Your task to perform on an android device: Go to network settings Image 0: 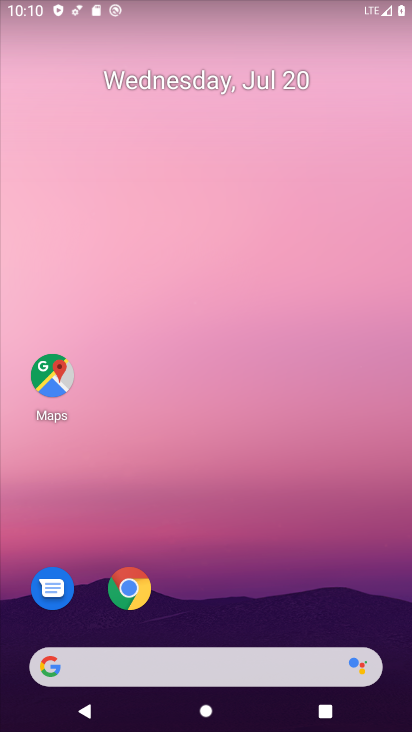
Step 0: drag from (212, 621) to (147, 37)
Your task to perform on an android device: Go to network settings Image 1: 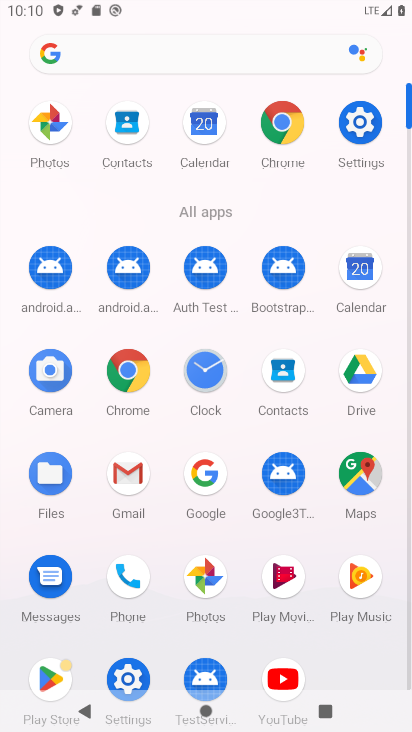
Step 1: click (363, 138)
Your task to perform on an android device: Go to network settings Image 2: 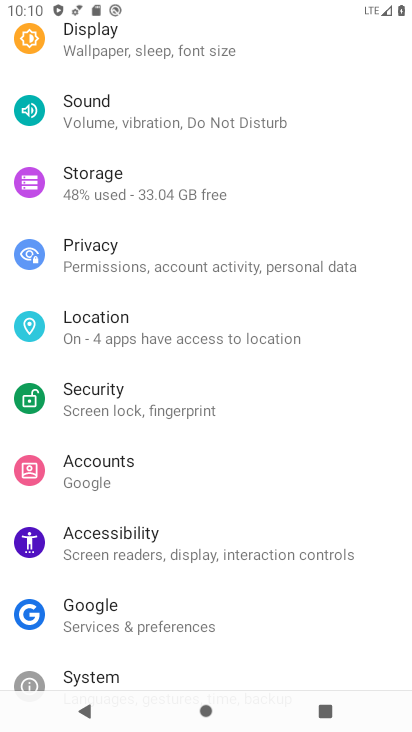
Step 2: drag from (152, 81) to (175, 572)
Your task to perform on an android device: Go to network settings Image 3: 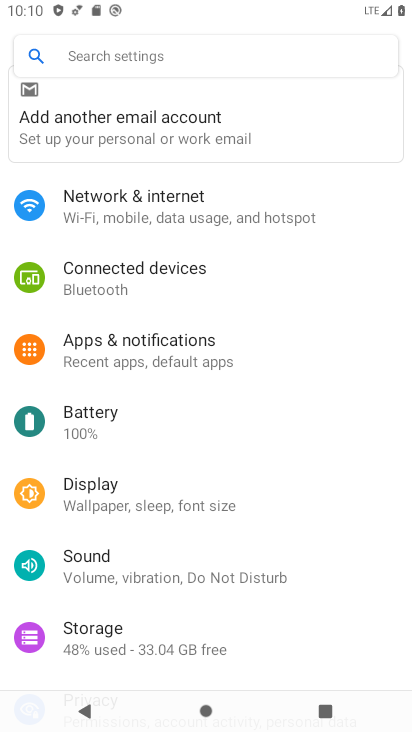
Step 3: click (141, 224)
Your task to perform on an android device: Go to network settings Image 4: 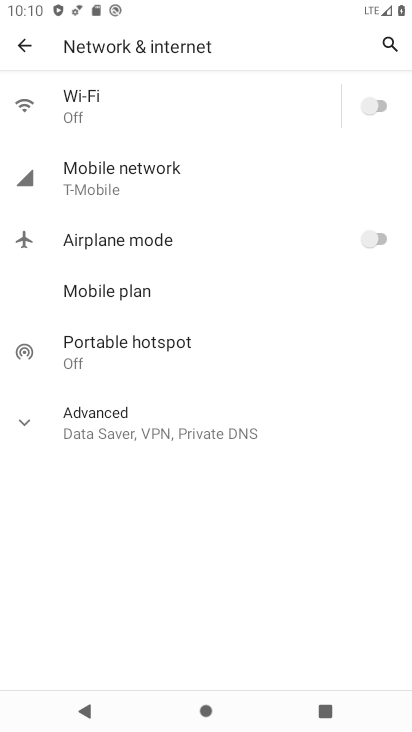
Step 4: click (125, 194)
Your task to perform on an android device: Go to network settings Image 5: 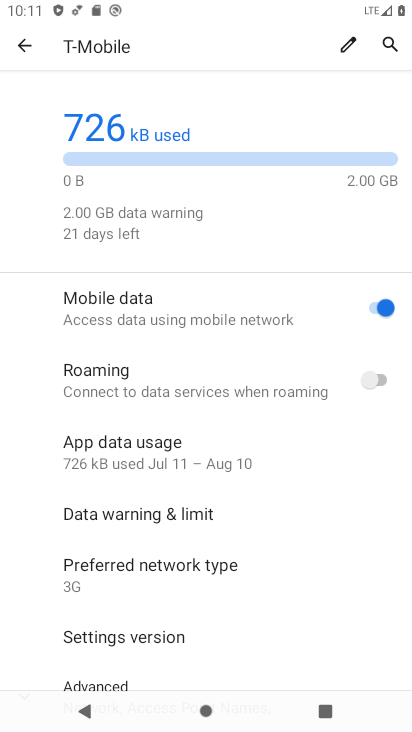
Step 5: task complete